Your task to perform on an android device: Search for razer blade on target, select the first entry, add it to the cart, then select checkout. Image 0: 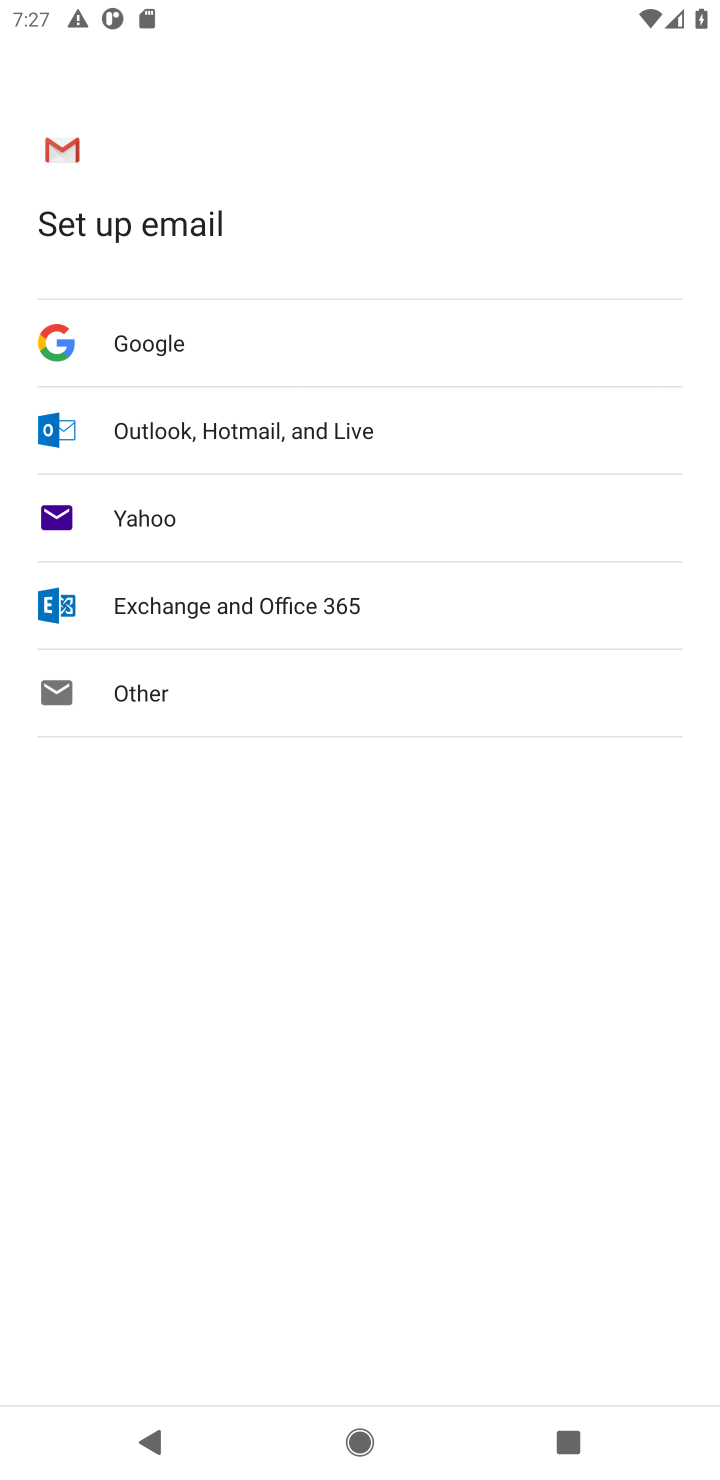
Step 0: press home button
Your task to perform on an android device: Search for razer blade on target, select the first entry, add it to the cart, then select checkout. Image 1: 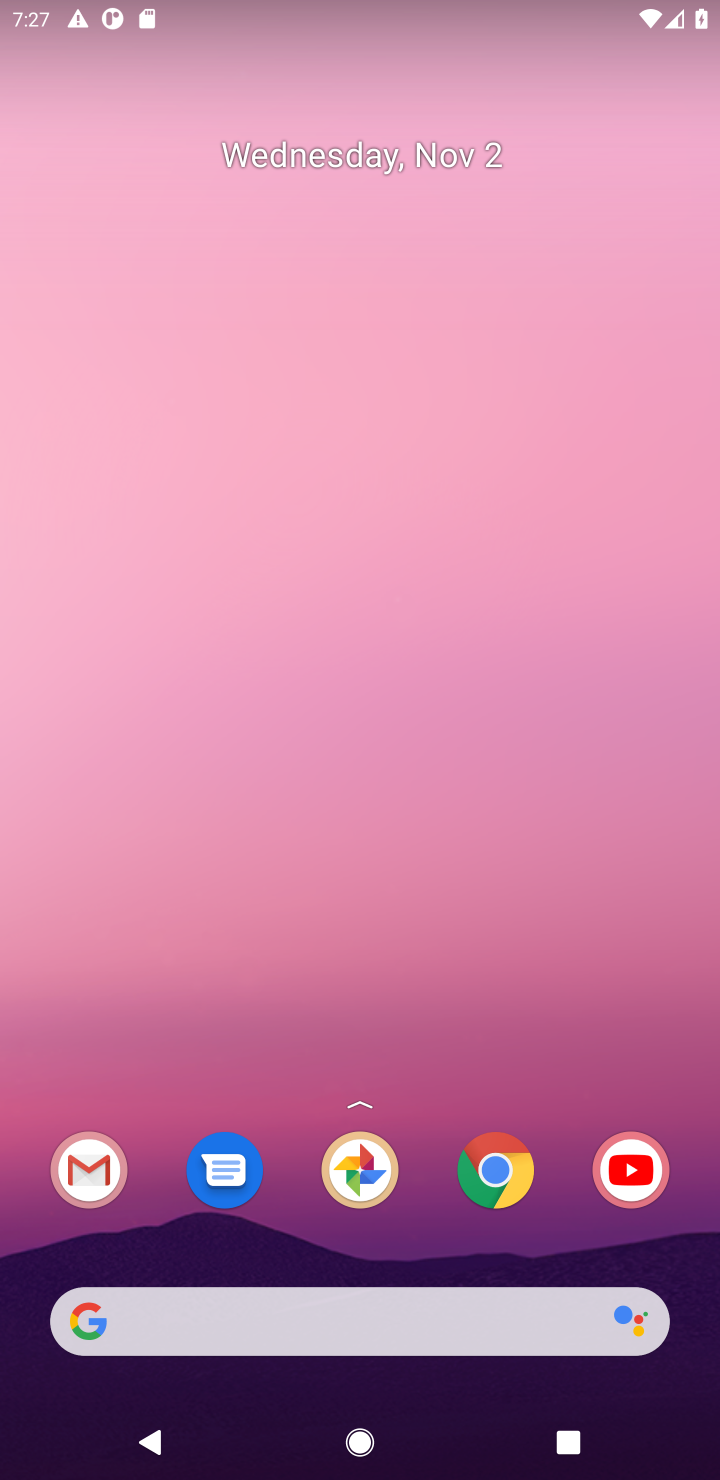
Step 1: click (509, 1176)
Your task to perform on an android device: Search for razer blade on target, select the first entry, add it to the cart, then select checkout. Image 2: 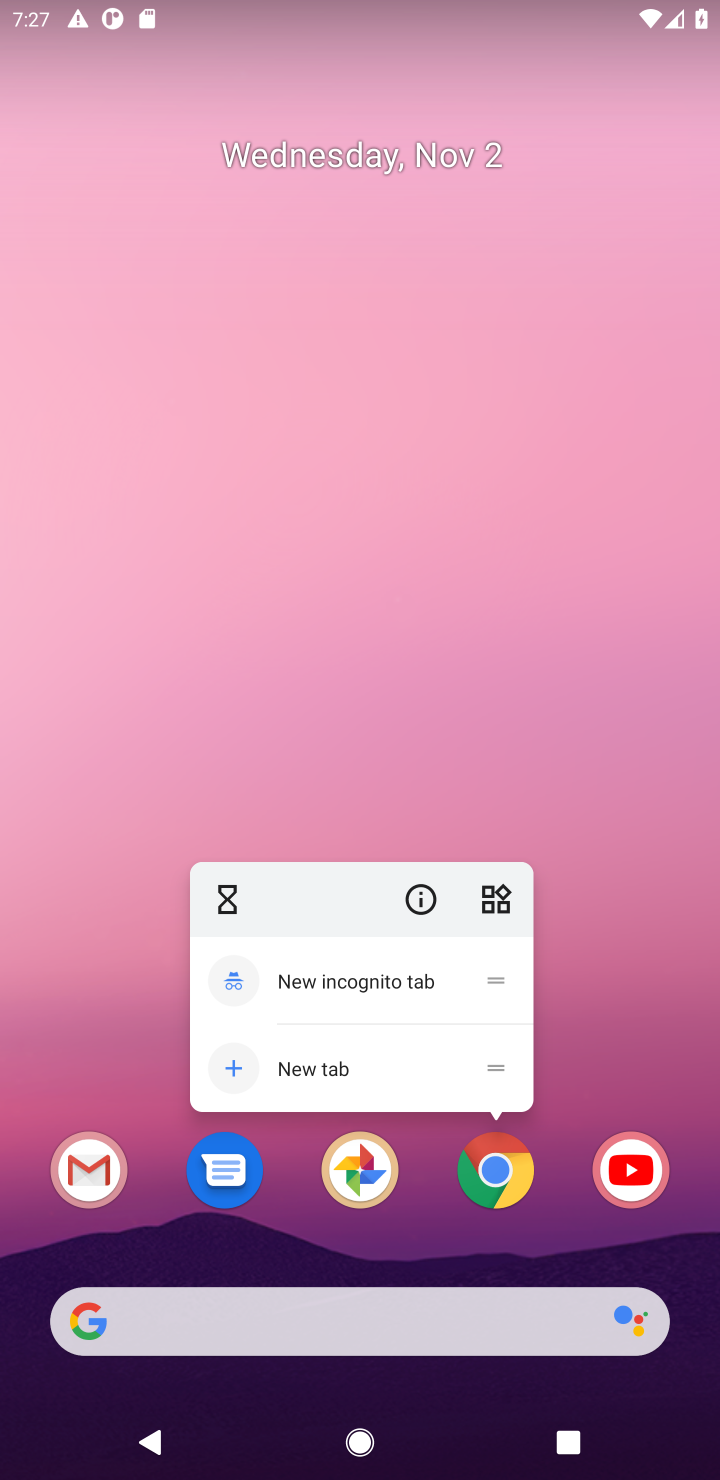
Step 2: click (507, 1209)
Your task to perform on an android device: Search for razer blade on target, select the first entry, add it to the cart, then select checkout. Image 3: 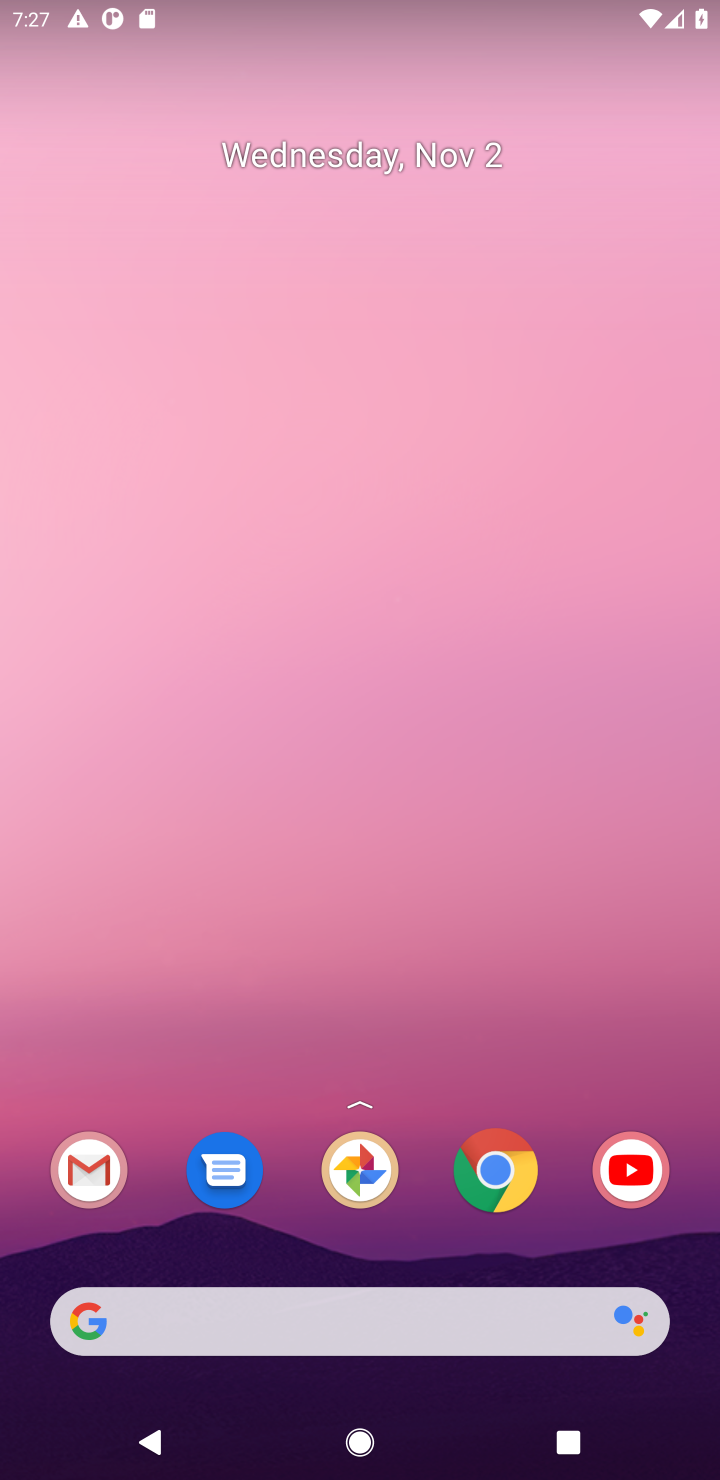
Step 3: click (507, 1195)
Your task to perform on an android device: Search for razer blade on target, select the first entry, add it to the cart, then select checkout. Image 4: 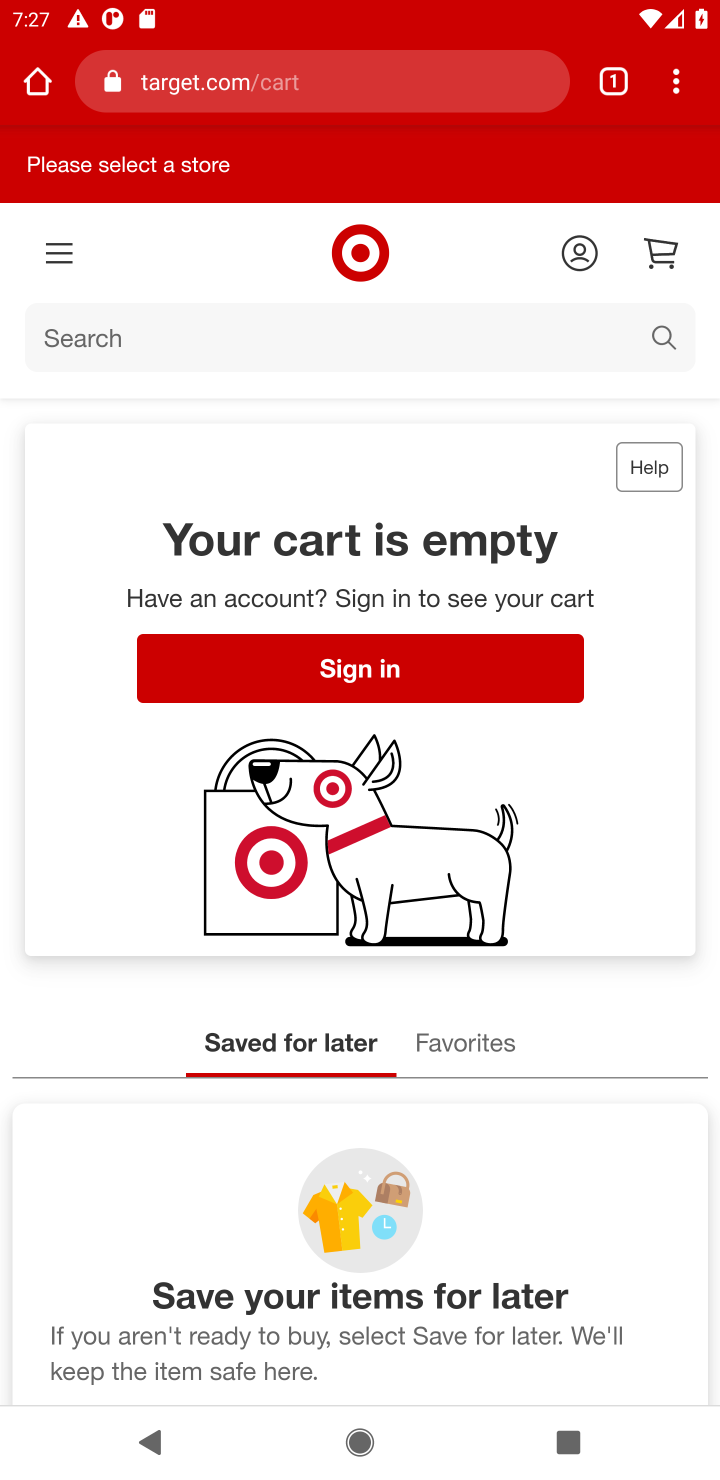
Step 4: click (260, 94)
Your task to perform on an android device: Search for razer blade on target, select the first entry, add it to the cart, then select checkout. Image 5: 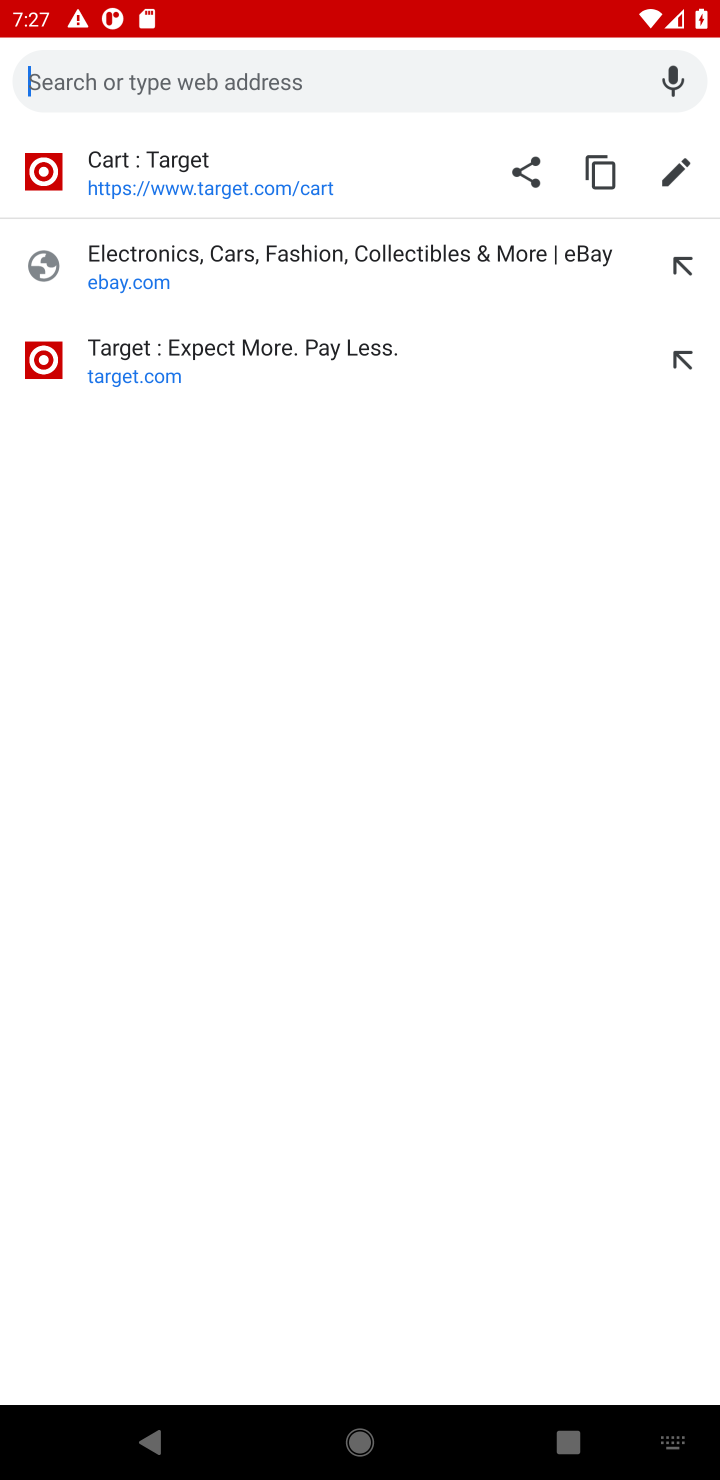
Step 5: type "target"
Your task to perform on an android device: Search for razer blade on target, select the first entry, add it to the cart, then select checkout. Image 6: 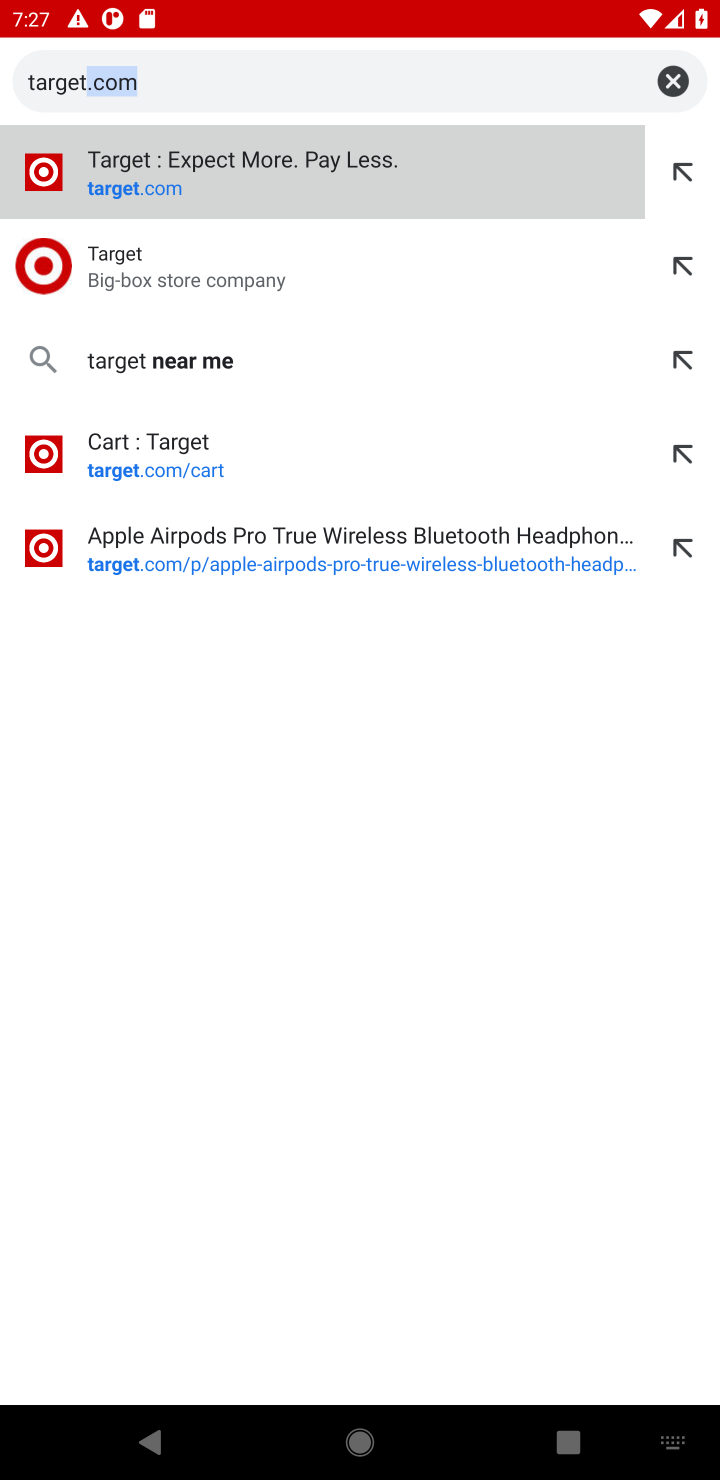
Step 6: type ""
Your task to perform on an android device: Search for razer blade on target, select the first entry, add it to the cart, then select checkout. Image 7: 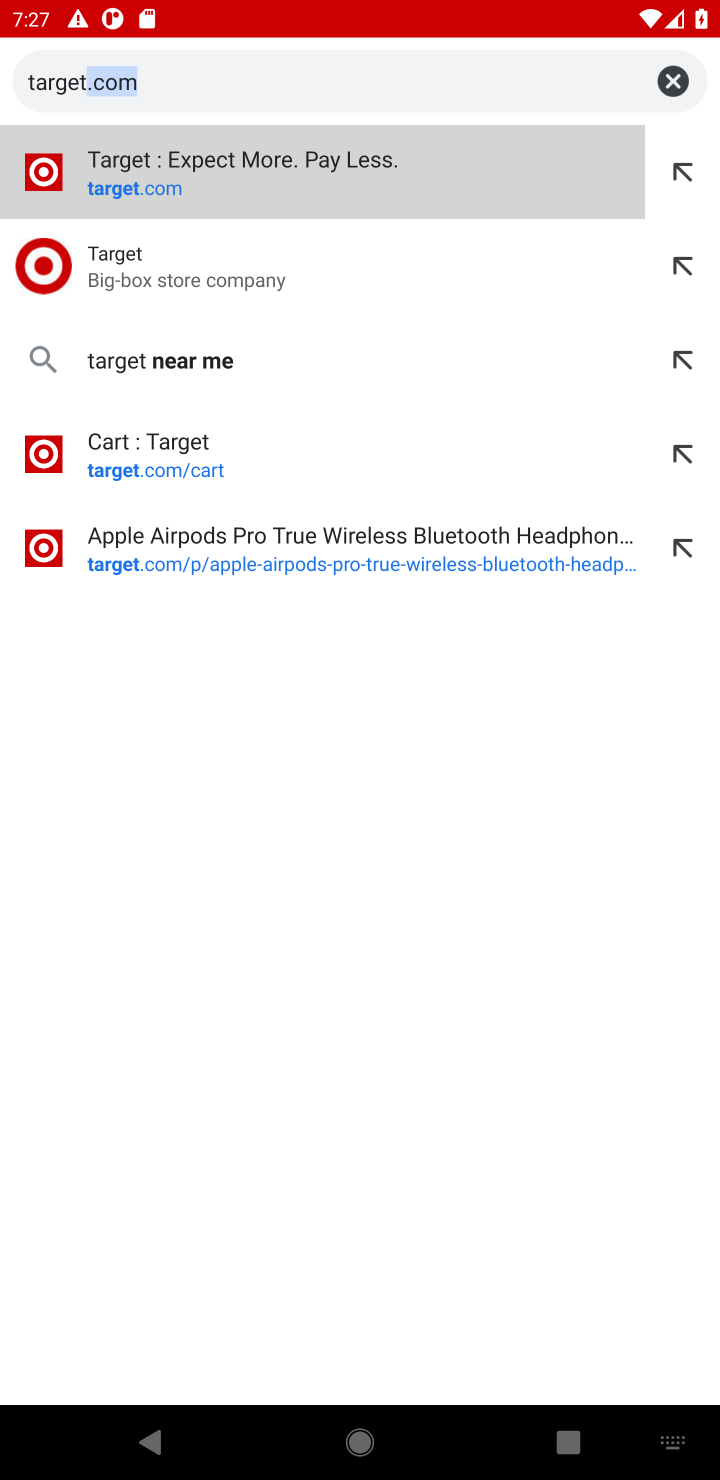
Step 7: press enter
Your task to perform on an android device: Search for razer blade on target, select the first entry, add it to the cart, then select checkout. Image 8: 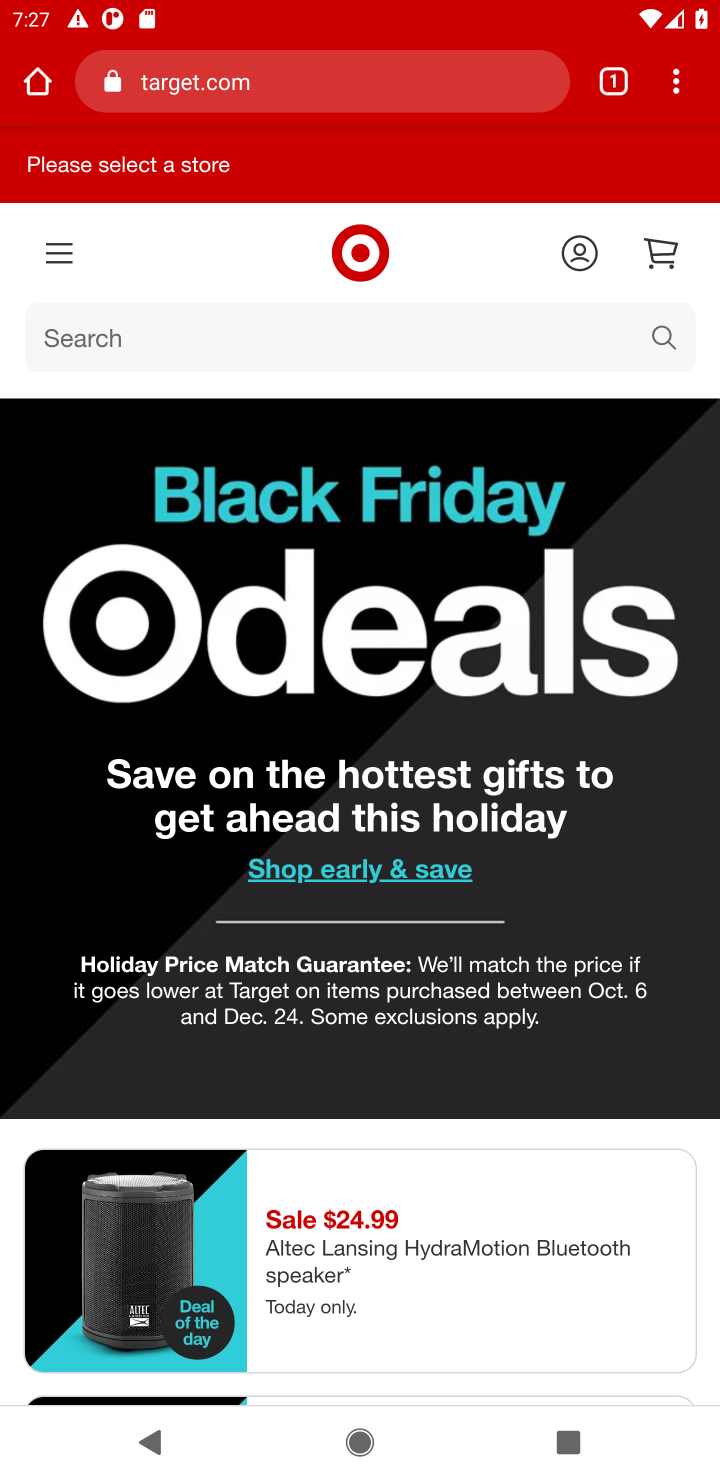
Step 8: drag from (435, 1175) to (237, 1476)
Your task to perform on an android device: Search for razer blade on target, select the first entry, add it to the cart, then select checkout. Image 9: 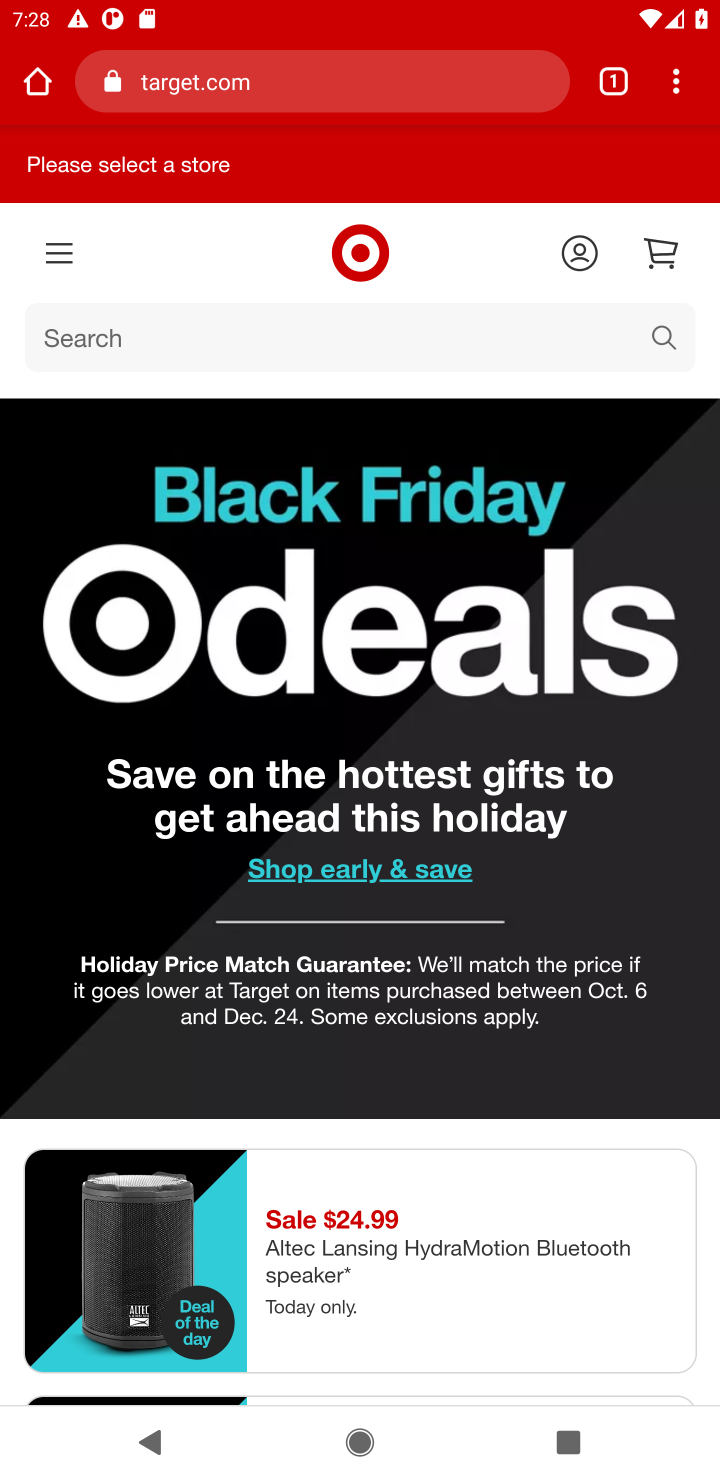
Step 9: click (189, 329)
Your task to perform on an android device: Search for razer blade on target, select the first entry, add it to the cart, then select checkout. Image 10: 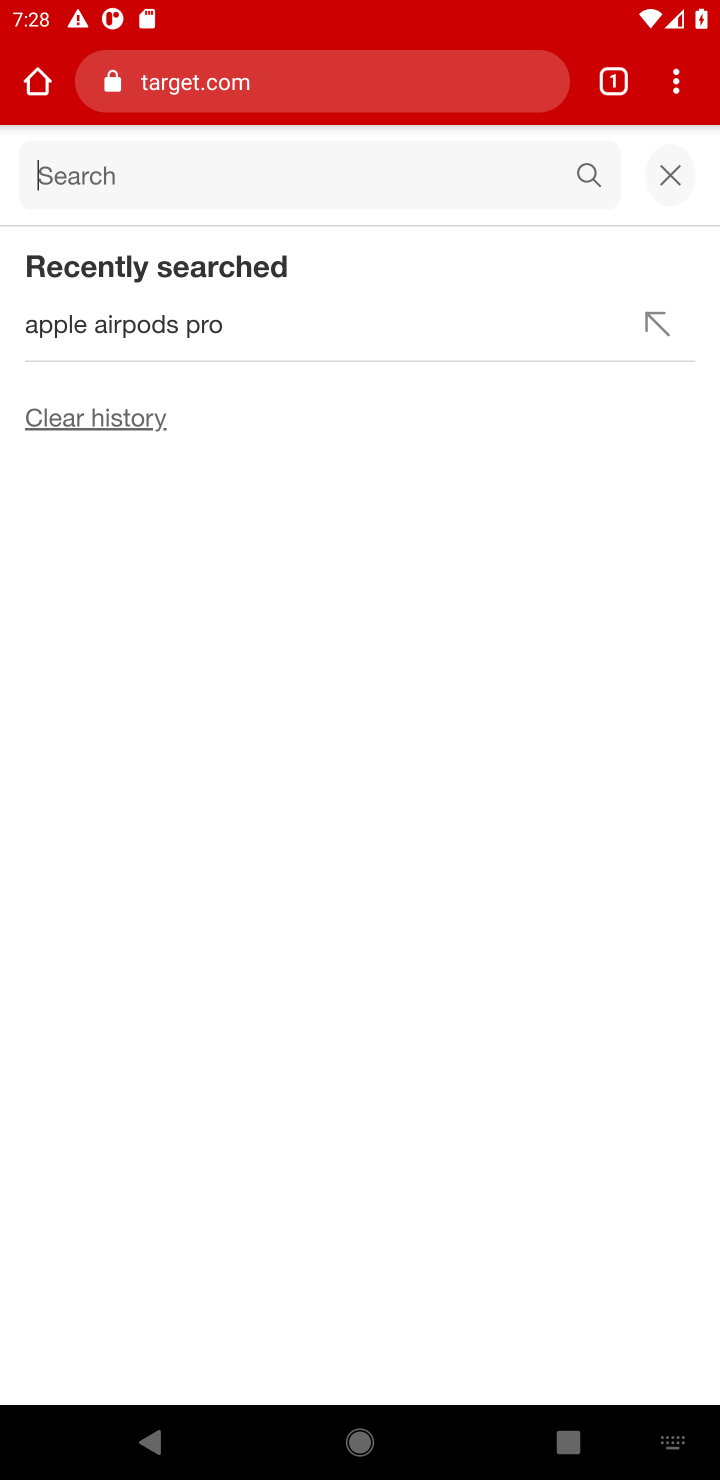
Step 10: type "razer blade"
Your task to perform on an android device: Search for razer blade on target, select the first entry, add it to the cart, then select checkout. Image 11: 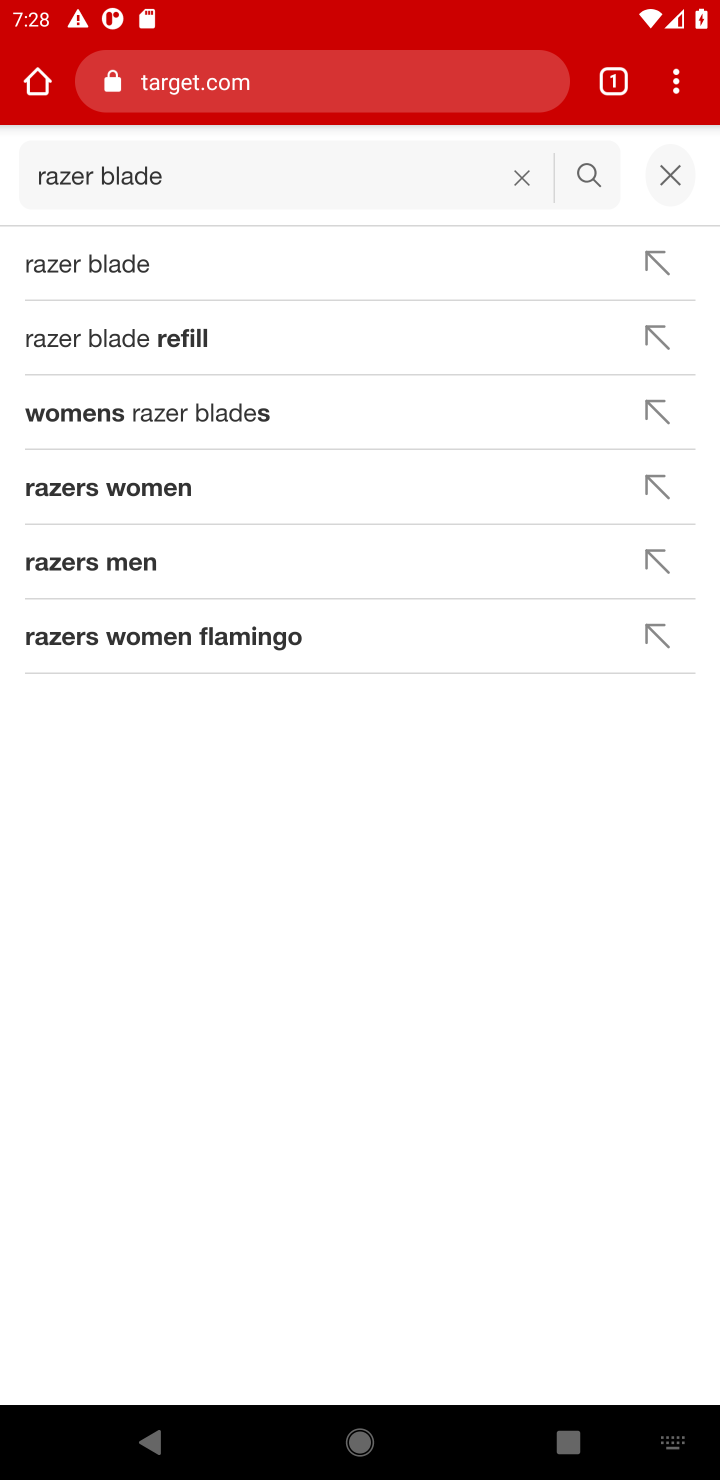
Step 11: press enter
Your task to perform on an android device: Search for razer blade on target, select the first entry, add it to the cart, then select checkout. Image 12: 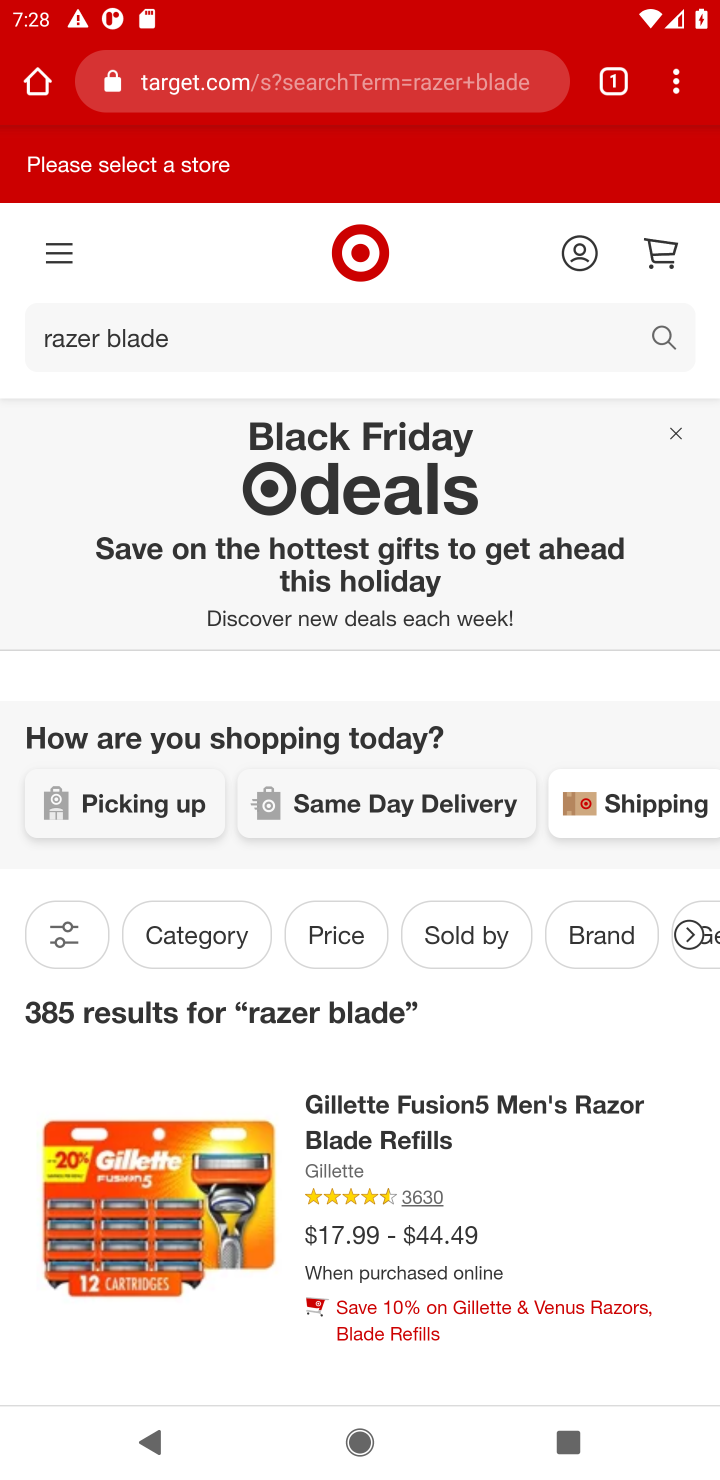
Step 12: click (347, 1160)
Your task to perform on an android device: Search for razer blade on target, select the first entry, add it to the cart, then select checkout. Image 13: 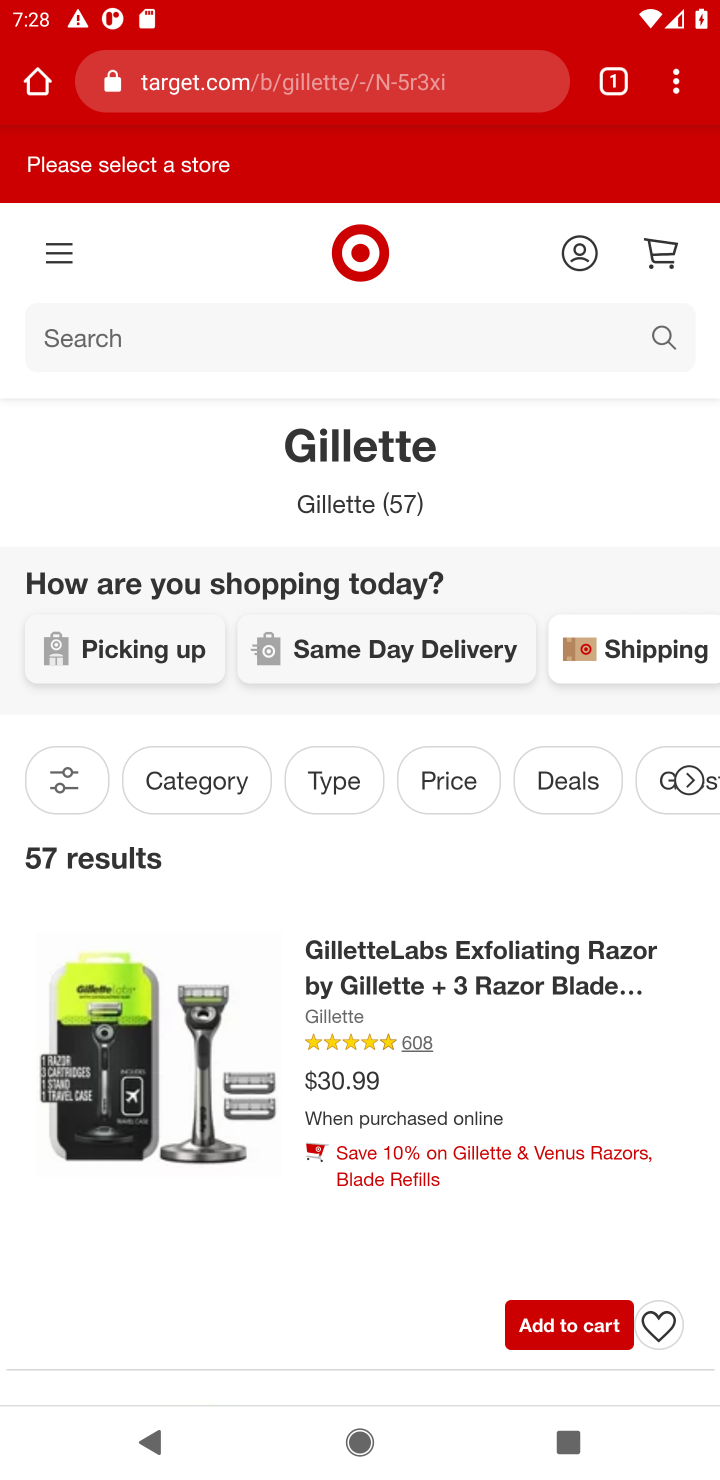
Step 13: drag from (221, 1157) to (153, 938)
Your task to perform on an android device: Search for razer blade on target, select the first entry, add it to the cart, then select checkout. Image 14: 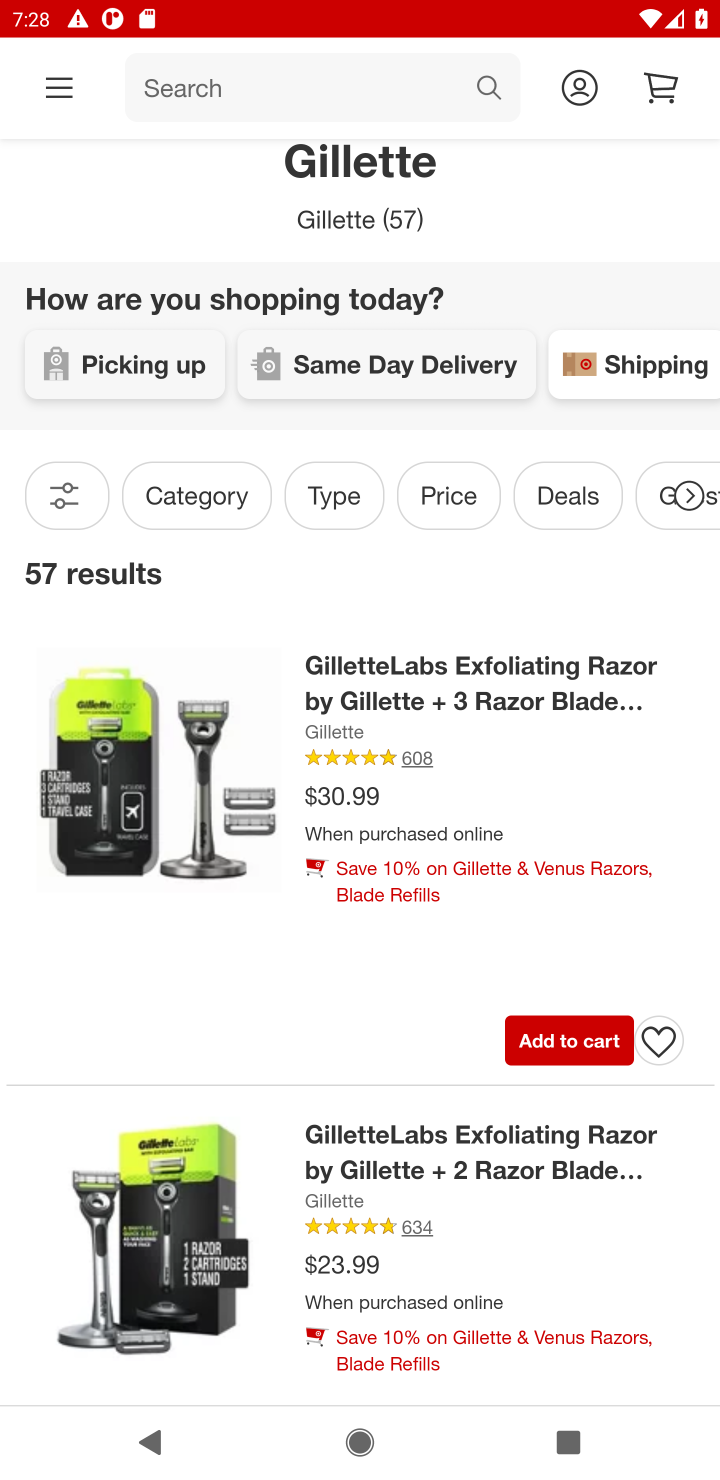
Step 14: press back button
Your task to perform on an android device: Search for razer blade on target, select the first entry, add it to the cart, then select checkout. Image 15: 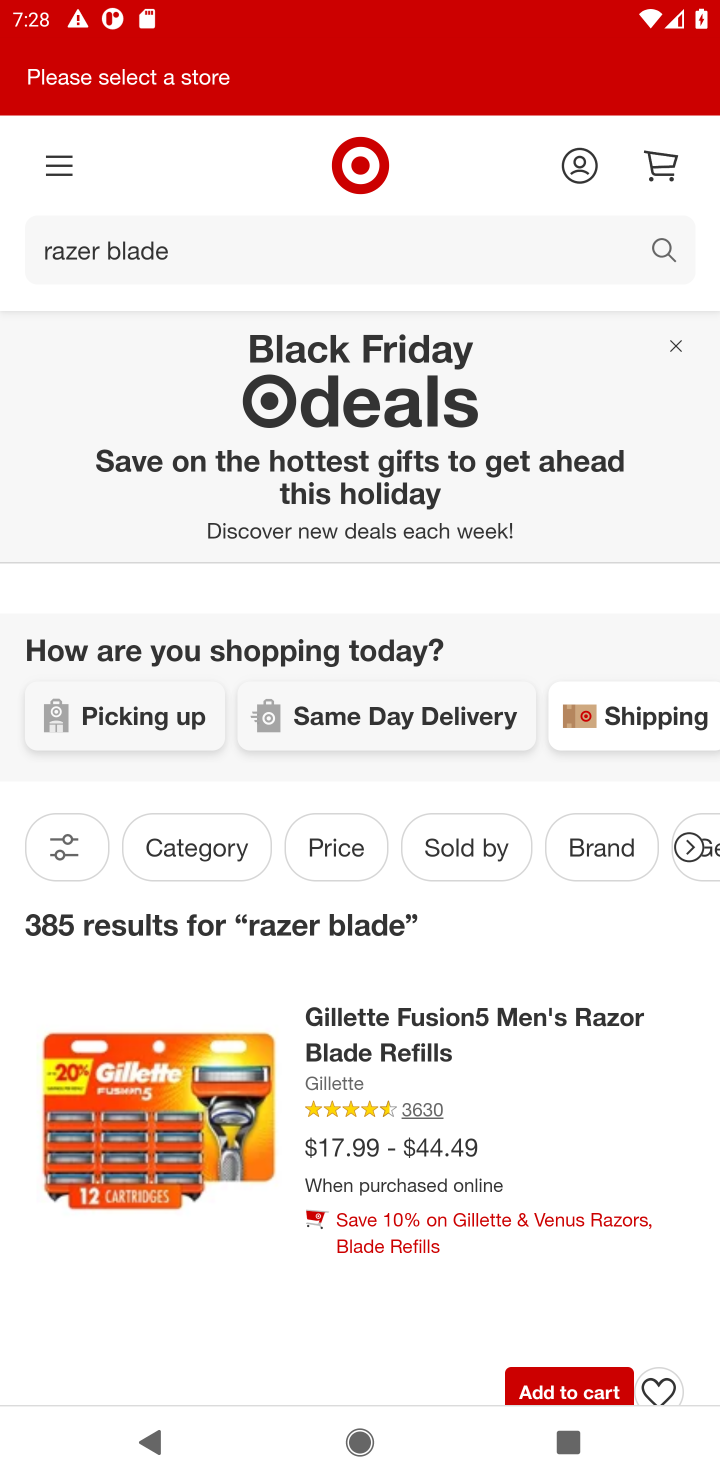
Step 15: click (157, 1141)
Your task to perform on an android device: Search for razer blade on target, select the first entry, add it to the cart, then select checkout. Image 16: 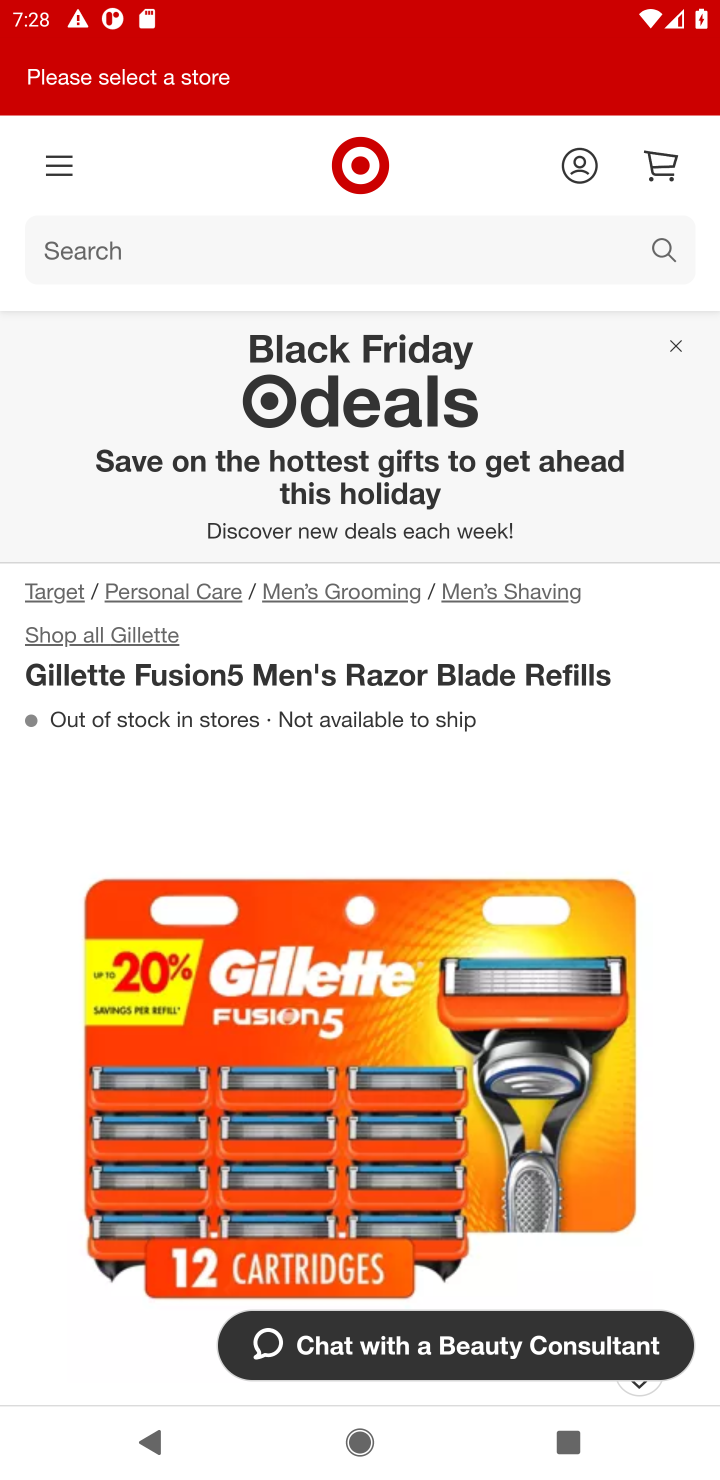
Step 16: drag from (441, 1060) to (337, 329)
Your task to perform on an android device: Search for razer blade on target, select the first entry, add it to the cart, then select checkout. Image 17: 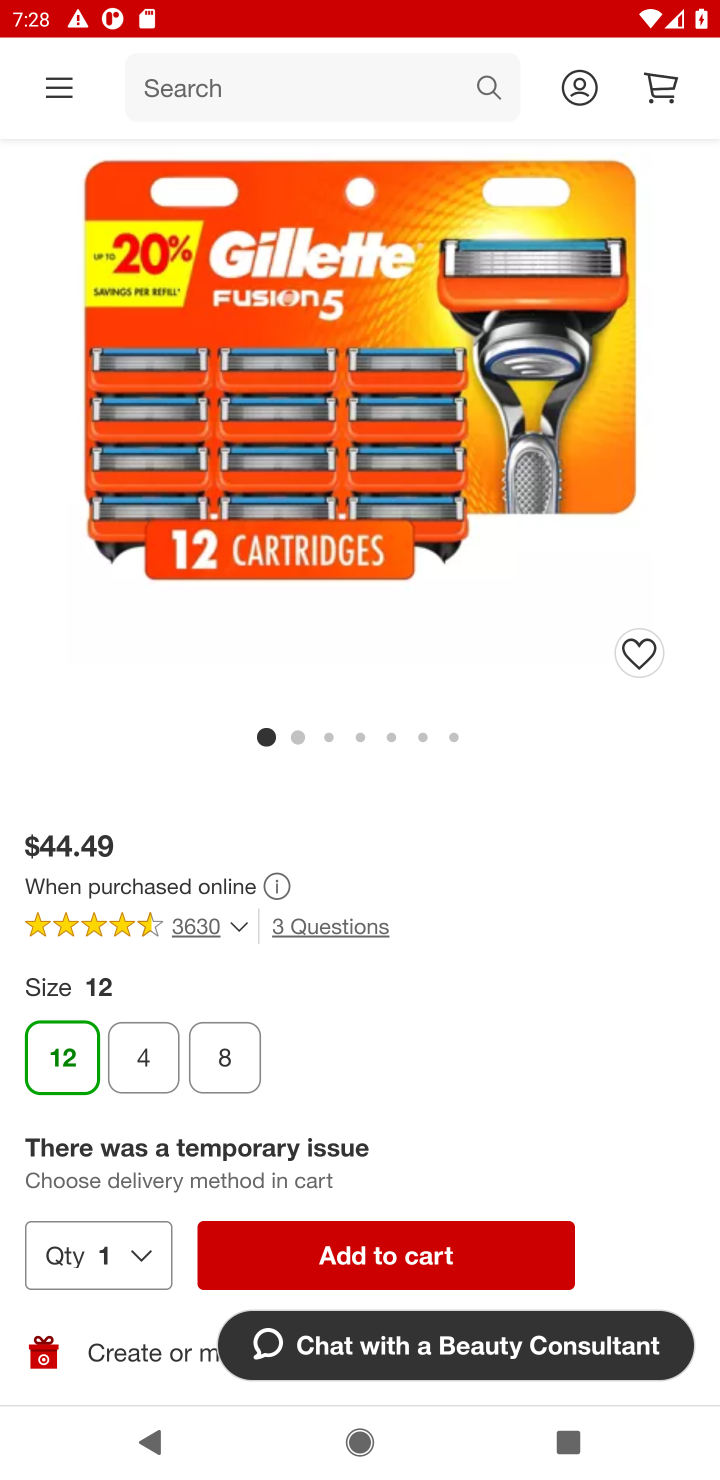
Step 17: click (374, 1254)
Your task to perform on an android device: Search for razer blade on target, select the first entry, add it to the cart, then select checkout. Image 18: 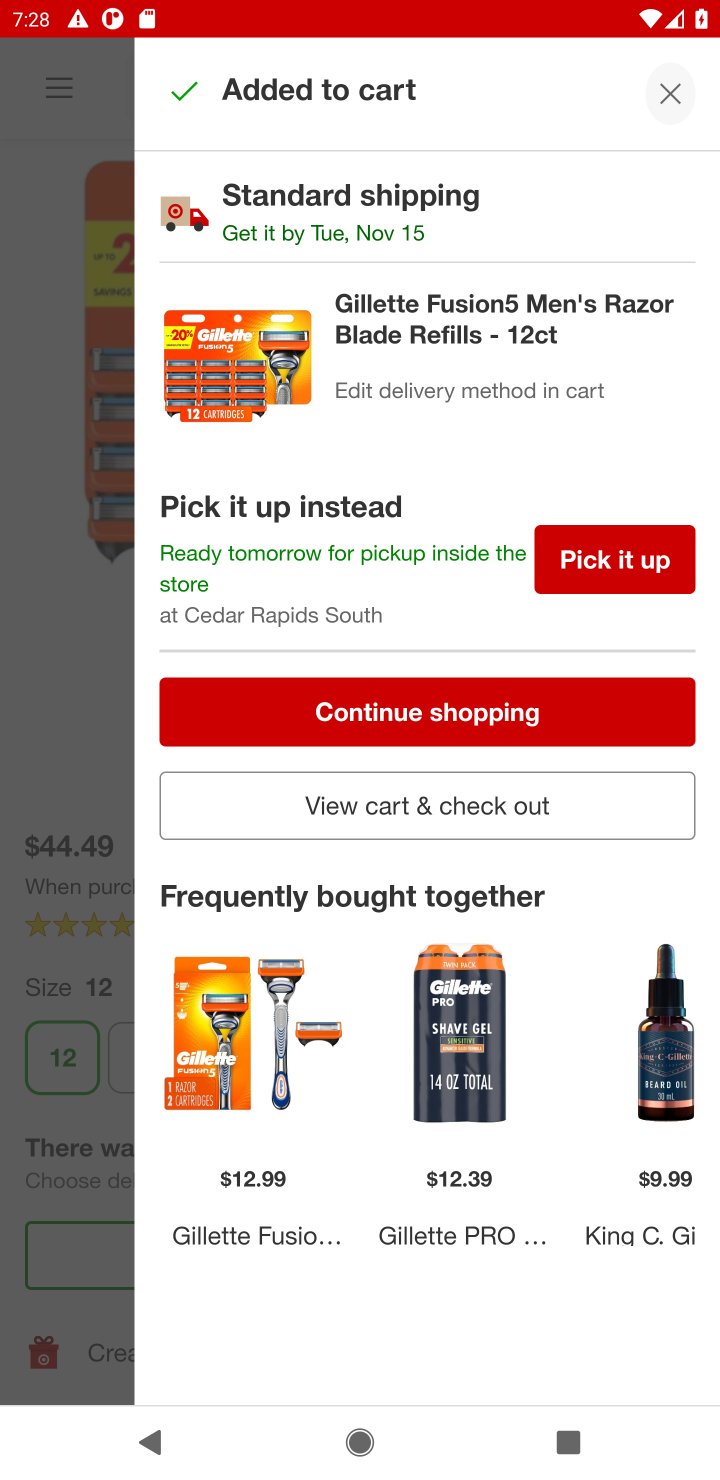
Step 18: click (506, 821)
Your task to perform on an android device: Search for razer blade on target, select the first entry, add it to the cart, then select checkout. Image 19: 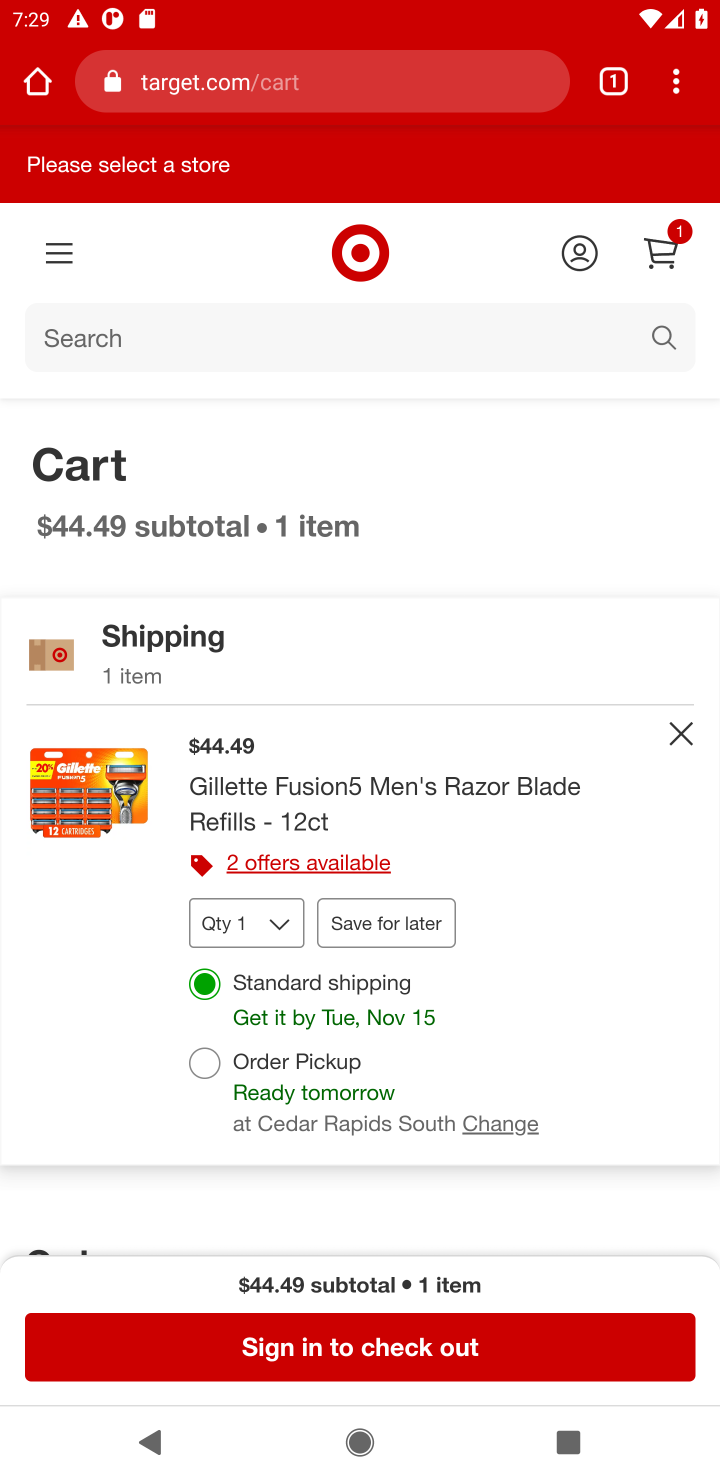
Step 19: click (525, 1346)
Your task to perform on an android device: Search for razer blade on target, select the first entry, add it to the cart, then select checkout. Image 20: 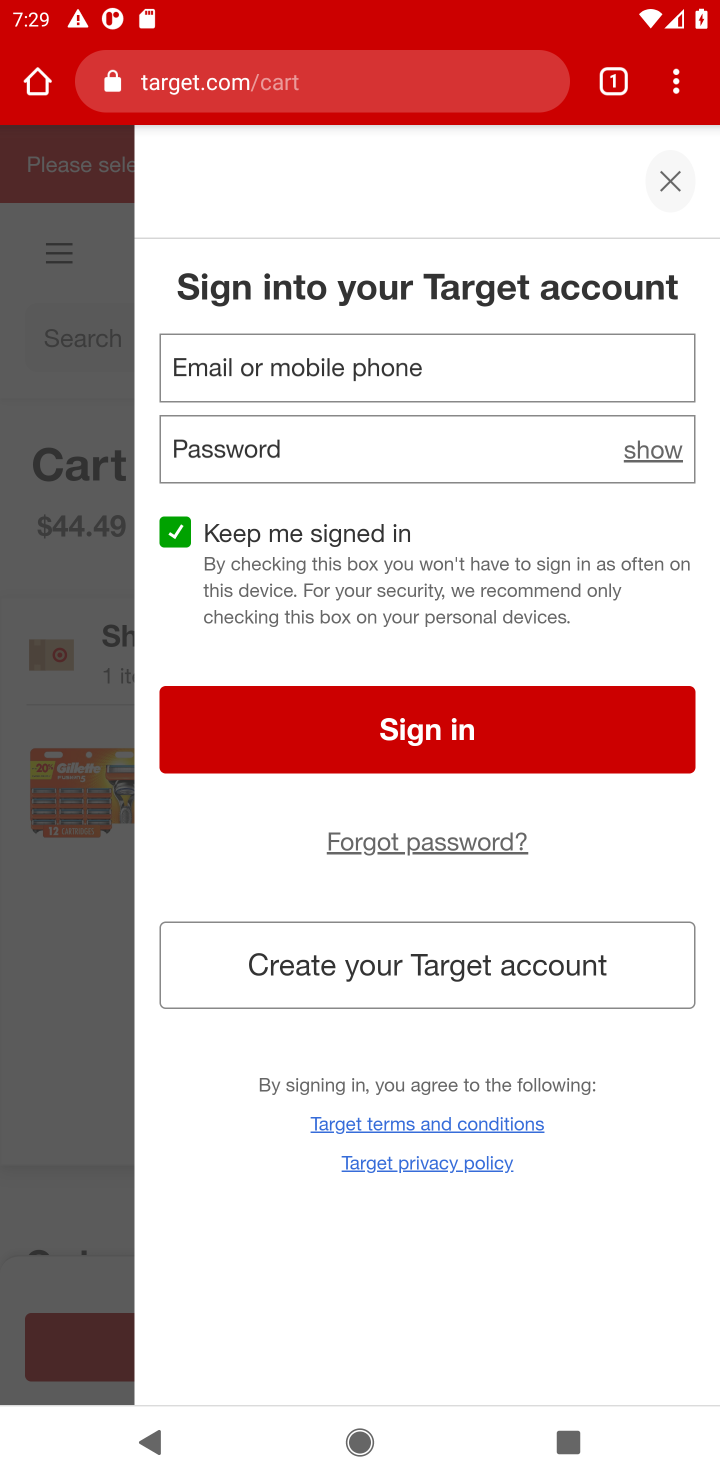
Step 20: task complete